Your task to perform on an android device: Open Chrome and go to settings Image 0: 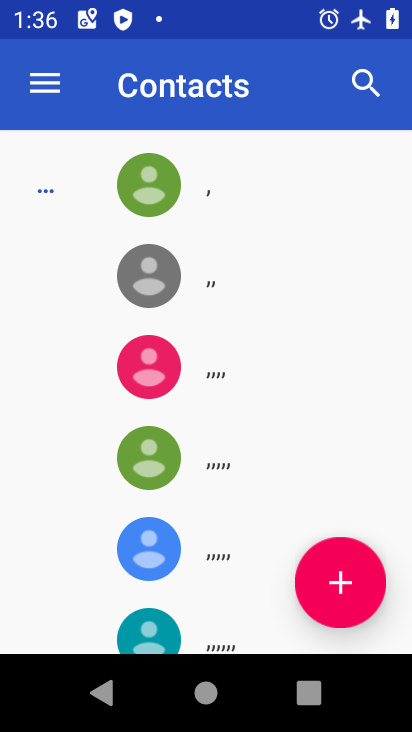
Step 0: press home button
Your task to perform on an android device: Open Chrome and go to settings Image 1: 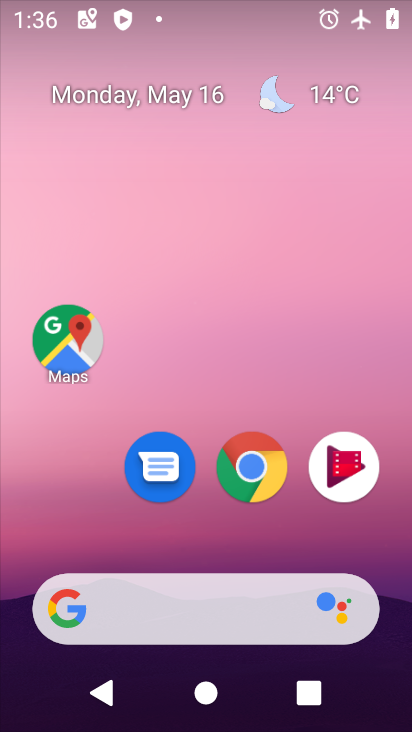
Step 1: drag from (177, 566) to (187, 249)
Your task to perform on an android device: Open Chrome and go to settings Image 2: 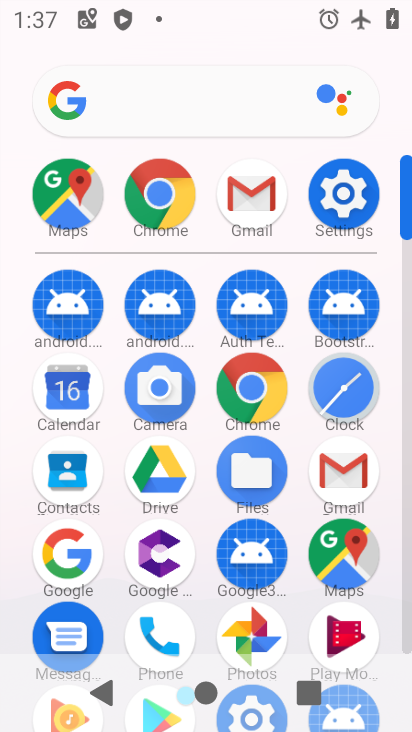
Step 2: click (192, 187)
Your task to perform on an android device: Open Chrome and go to settings Image 3: 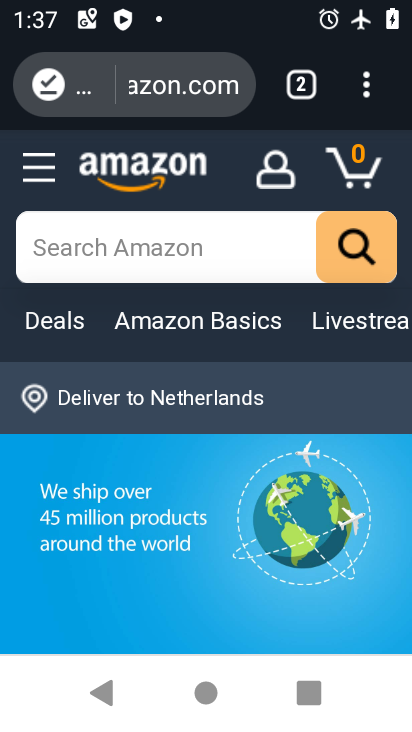
Step 3: click (356, 79)
Your task to perform on an android device: Open Chrome and go to settings Image 4: 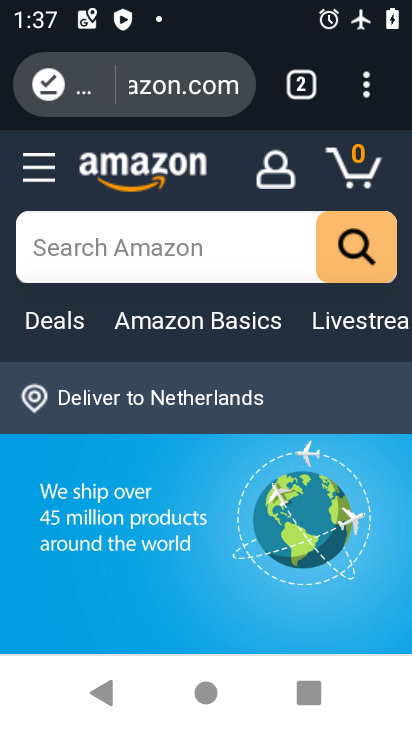
Step 4: click (382, 73)
Your task to perform on an android device: Open Chrome and go to settings Image 5: 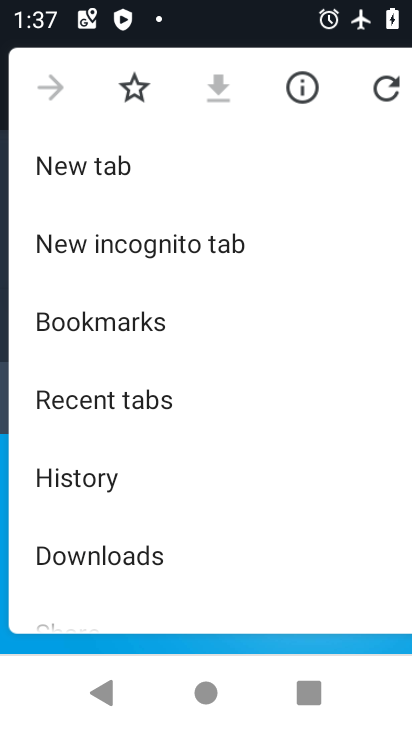
Step 5: drag from (107, 490) to (169, 207)
Your task to perform on an android device: Open Chrome and go to settings Image 6: 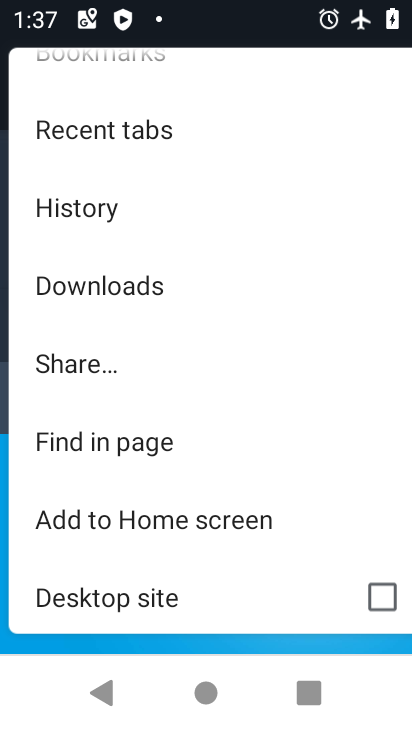
Step 6: drag from (132, 478) to (192, 300)
Your task to perform on an android device: Open Chrome and go to settings Image 7: 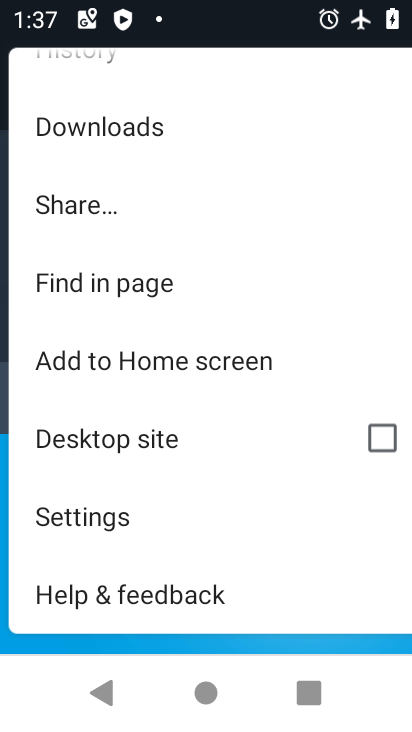
Step 7: click (123, 518)
Your task to perform on an android device: Open Chrome and go to settings Image 8: 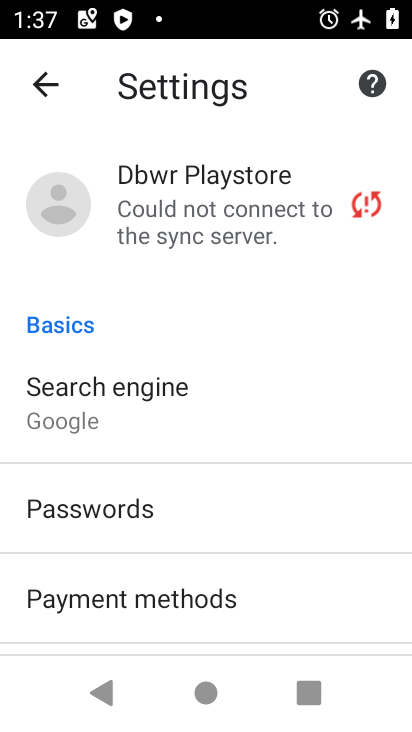
Step 8: task complete